Your task to perform on an android device: Open Reddit.com Image 0: 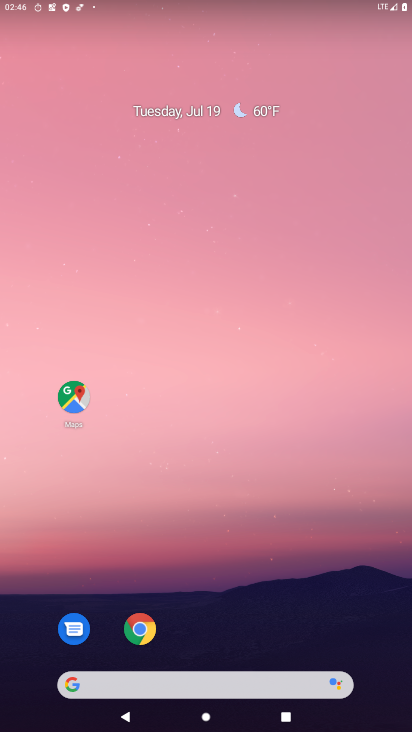
Step 0: click (153, 617)
Your task to perform on an android device: Open Reddit.com Image 1: 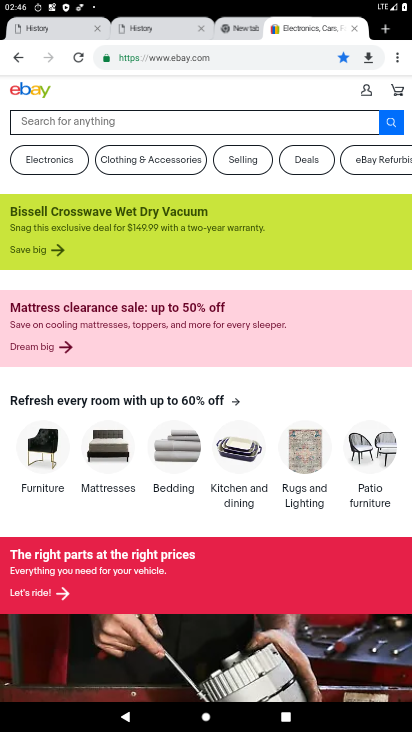
Step 1: click (382, 35)
Your task to perform on an android device: Open Reddit.com Image 2: 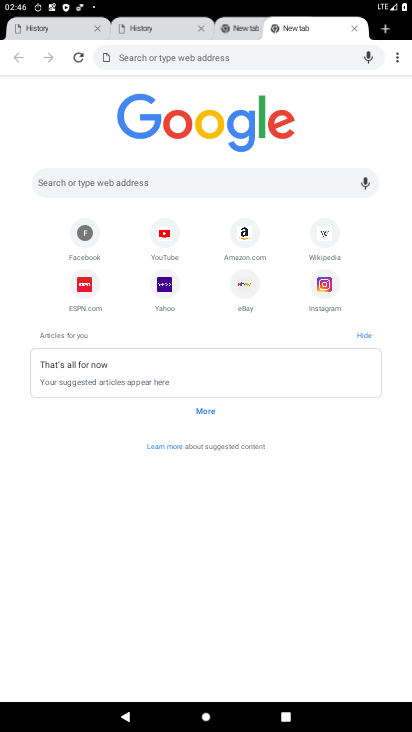
Step 2: click (156, 189)
Your task to perform on an android device: Open Reddit.com Image 3: 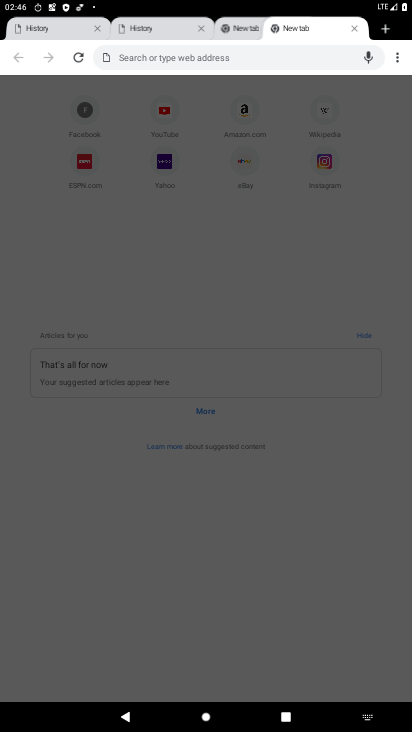
Step 3: type "Reddit.com"
Your task to perform on an android device: Open Reddit.com Image 4: 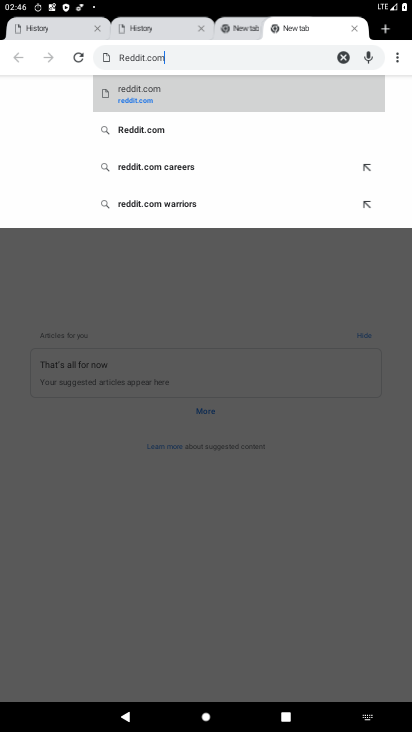
Step 4: click (233, 91)
Your task to perform on an android device: Open Reddit.com Image 5: 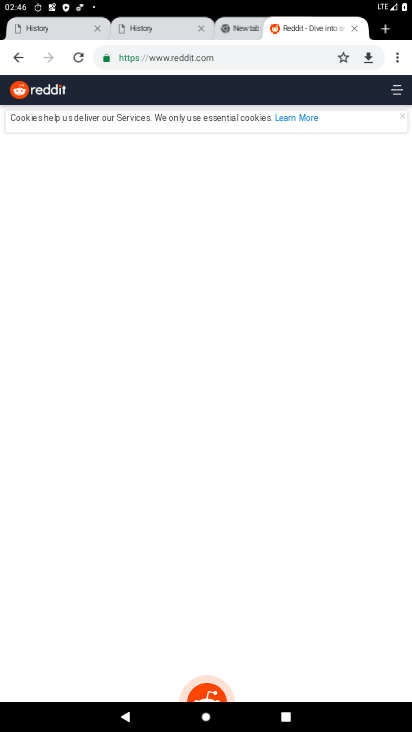
Step 5: task complete